Your task to perform on an android device: turn off sleep mode Image 0: 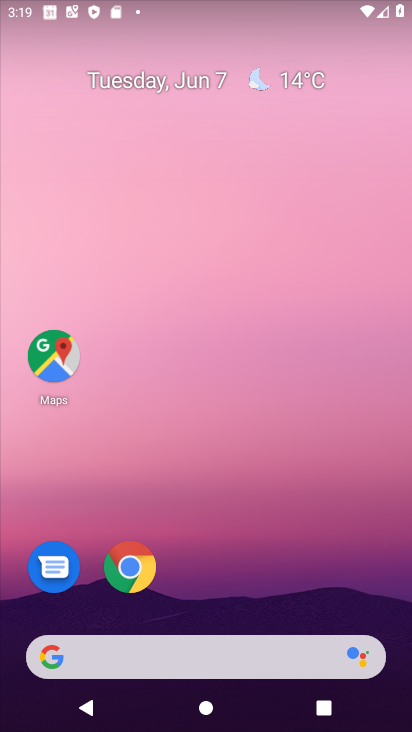
Step 0: drag from (187, 599) to (268, 154)
Your task to perform on an android device: turn off sleep mode Image 1: 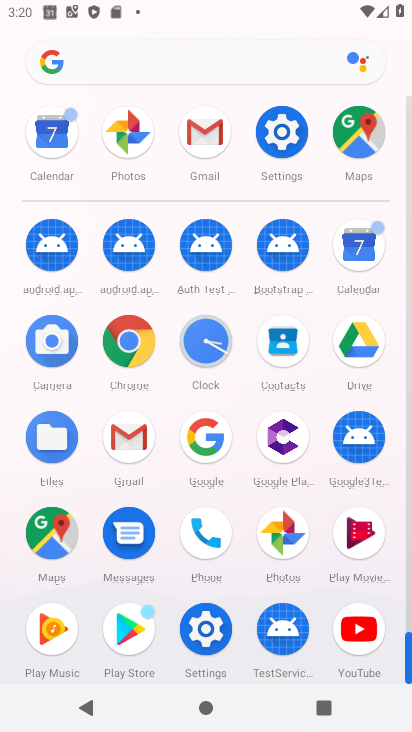
Step 1: click (283, 133)
Your task to perform on an android device: turn off sleep mode Image 2: 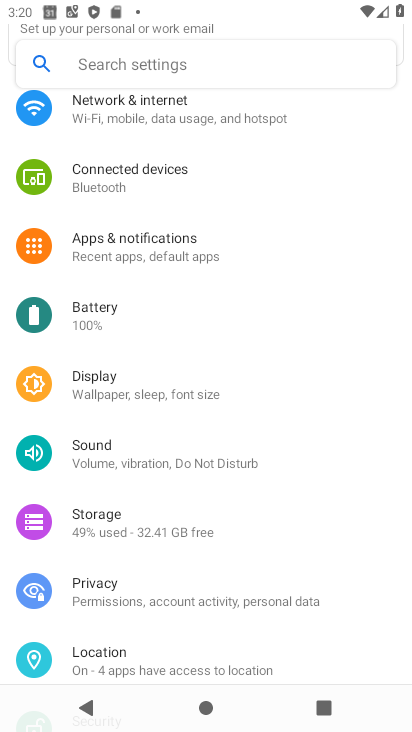
Step 2: click (146, 372)
Your task to perform on an android device: turn off sleep mode Image 3: 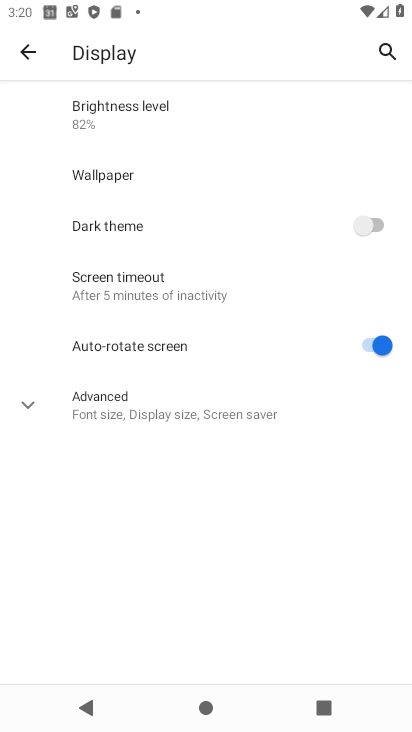
Step 3: click (156, 274)
Your task to perform on an android device: turn off sleep mode Image 4: 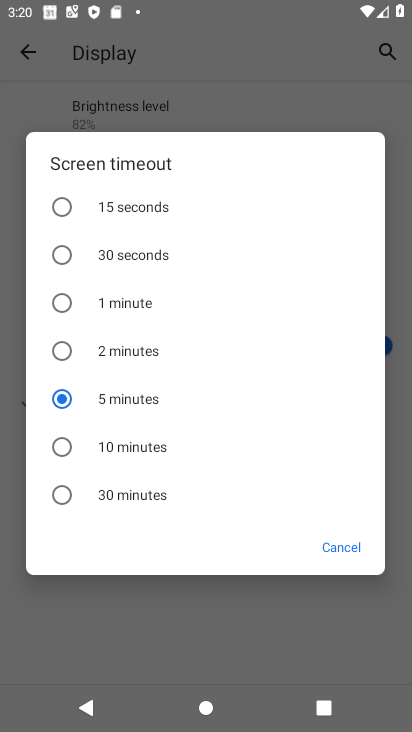
Step 4: click (153, 263)
Your task to perform on an android device: turn off sleep mode Image 5: 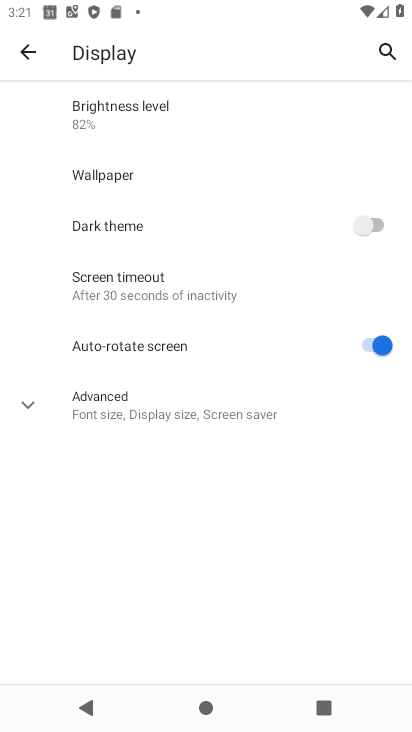
Step 5: task complete